Your task to perform on an android device: set the stopwatch Image 0: 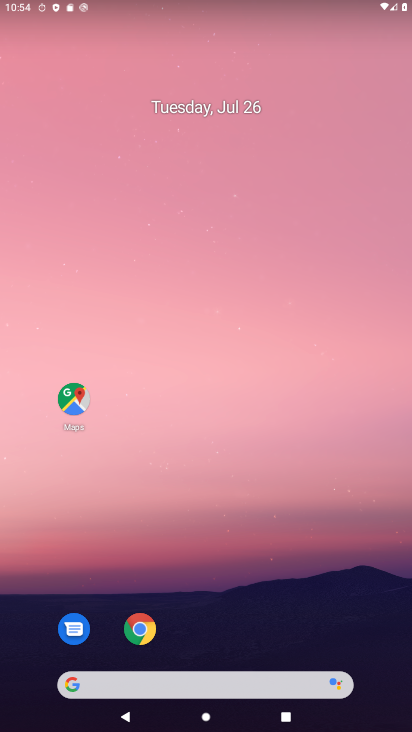
Step 0: drag from (349, 624) to (143, 22)
Your task to perform on an android device: set the stopwatch Image 1: 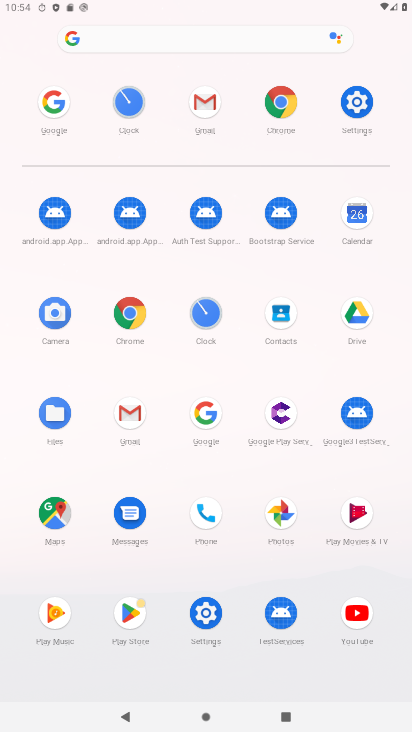
Step 1: click (208, 326)
Your task to perform on an android device: set the stopwatch Image 2: 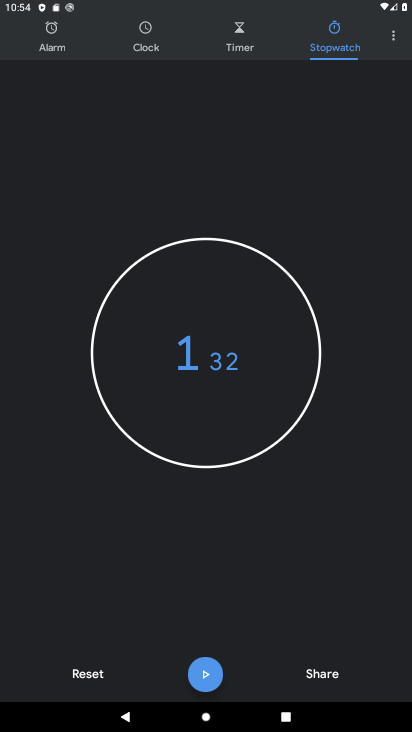
Step 2: click (195, 675)
Your task to perform on an android device: set the stopwatch Image 3: 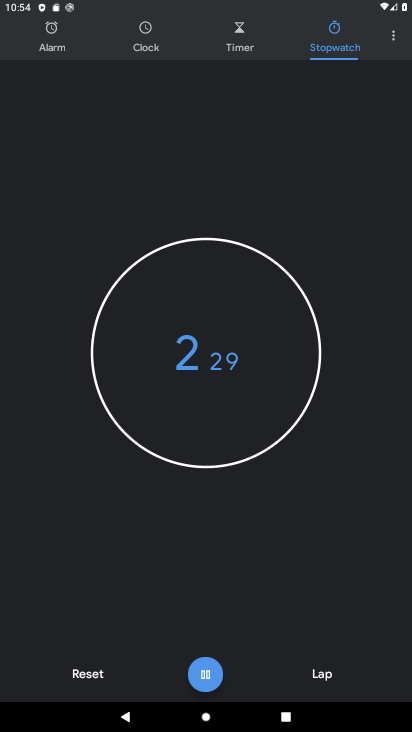
Step 3: click (195, 675)
Your task to perform on an android device: set the stopwatch Image 4: 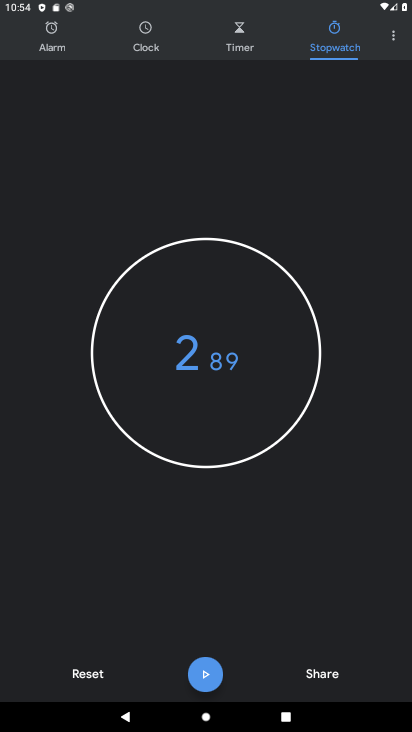
Step 4: task complete